Your task to perform on an android device: Open Android settings Image 0: 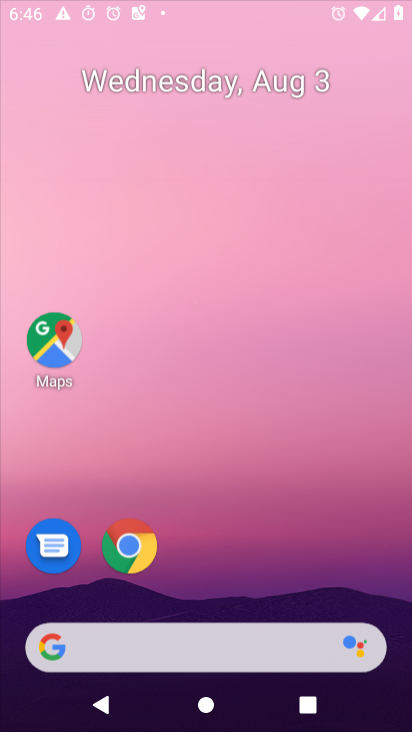
Step 0: press home button
Your task to perform on an android device: Open Android settings Image 1: 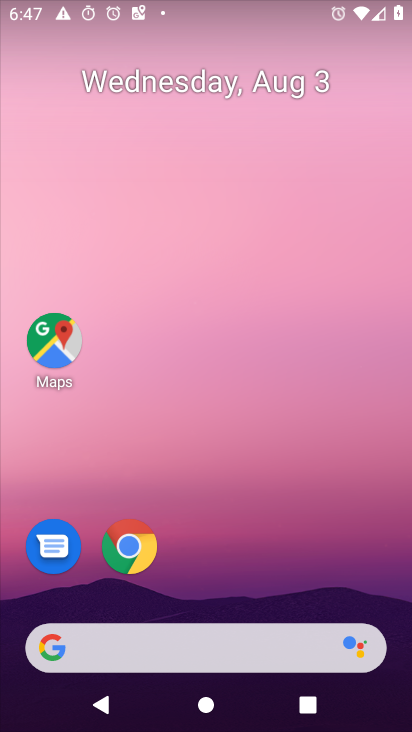
Step 1: drag from (189, 559) to (260, 12)
Your task to perform on an android device: Open Android settings Image 2: 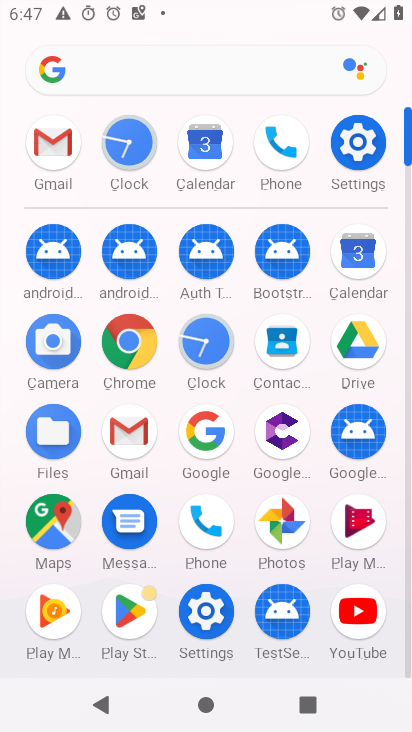
Step 2: click (359, 149)
Your task to perform on an android device: Open Android settings Image 3: 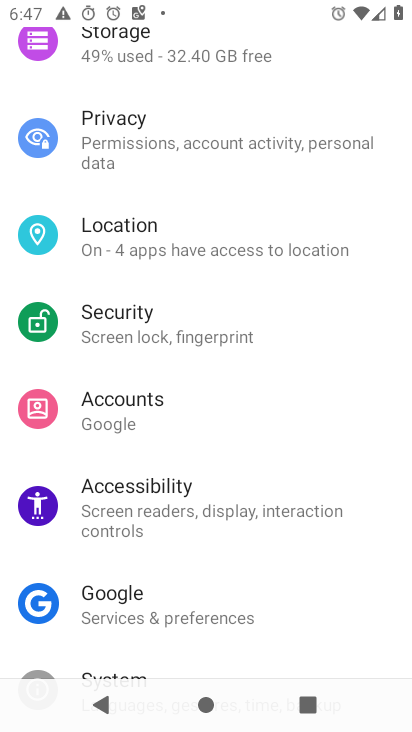
Step 3: task complete